Your task to perform on an android device: Open Google Maps Image 0: 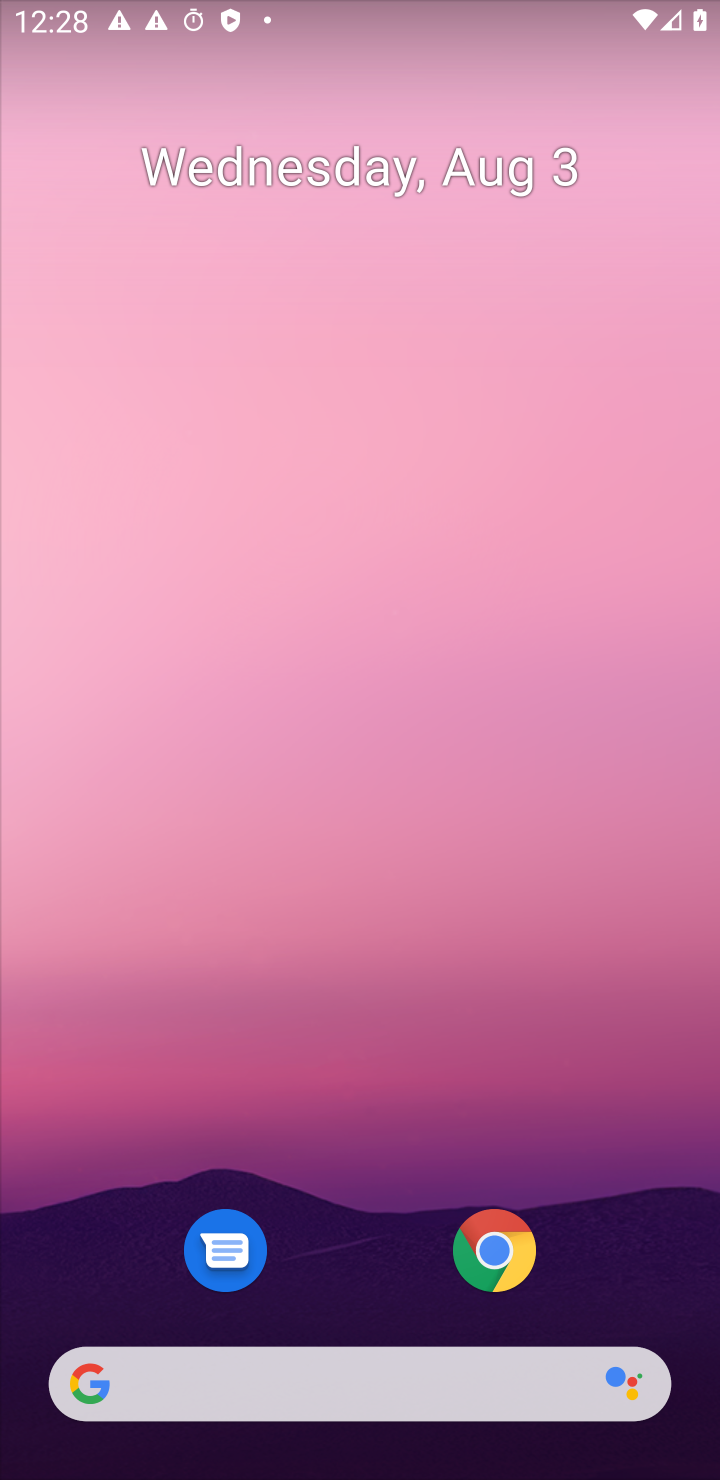
Step 0: drag from (351, 1195) to (378, 203)
Your task to perform on an android device: Open Google Maps Image 1: 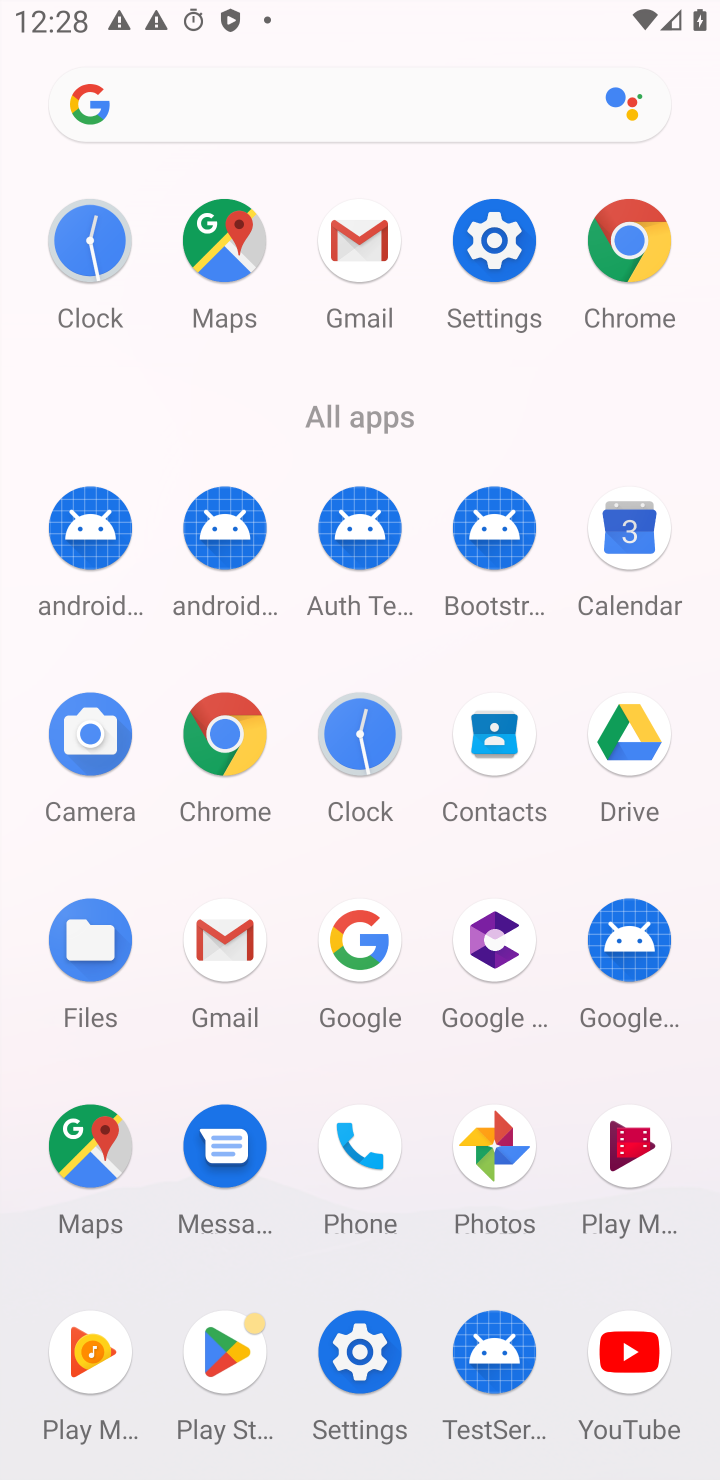
Step 1: click (105, 1168)
Your task to perform on an android device: Open Google Maps Image 2: 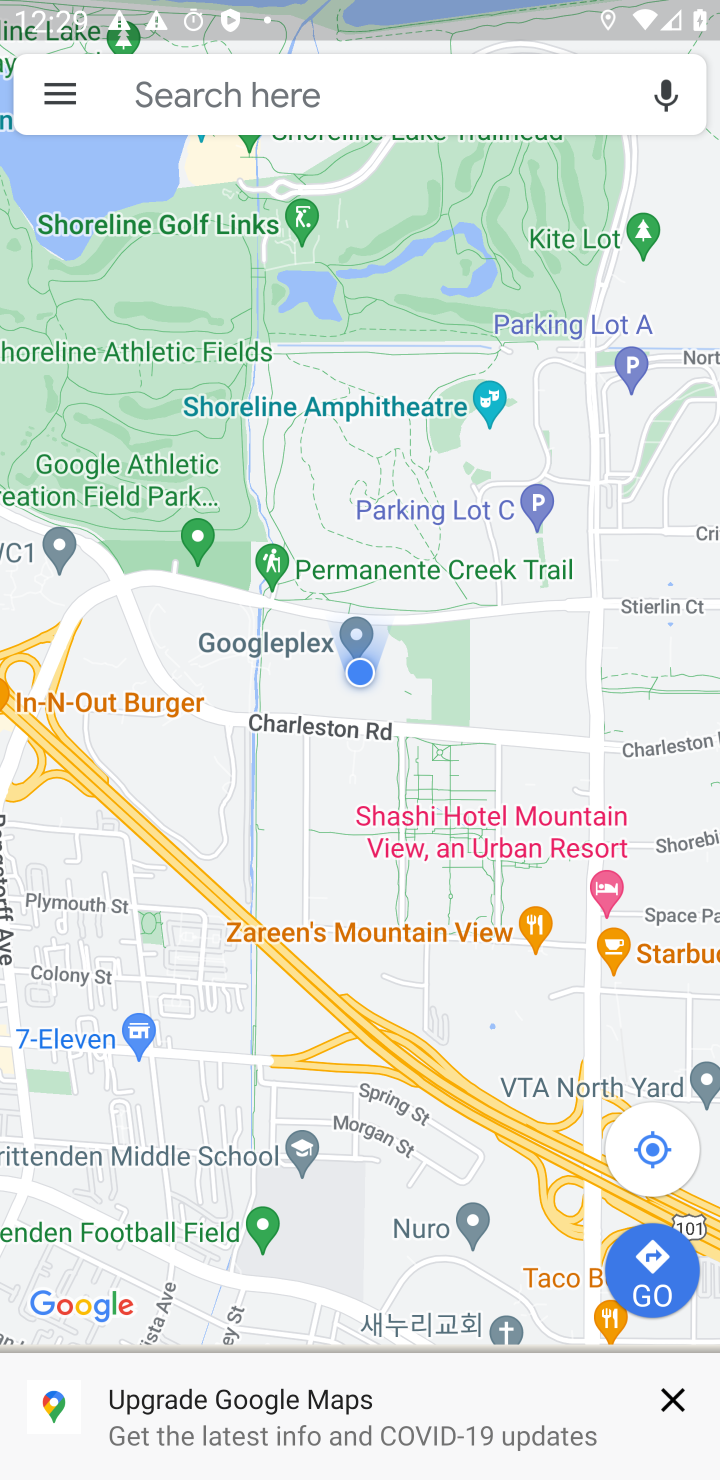
Step 2: task complete